Your task to perform on an android device: turn pop-ups off in chrome Image 0: 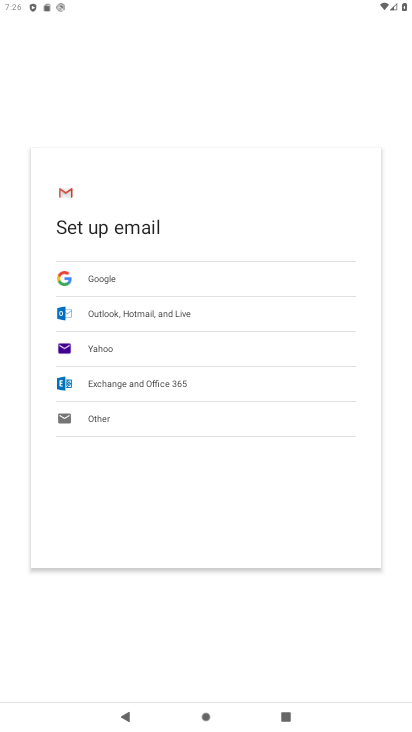
Step 0: press home button
Your task to perform on an android device: turn pop-ups off in chrome Image 1: 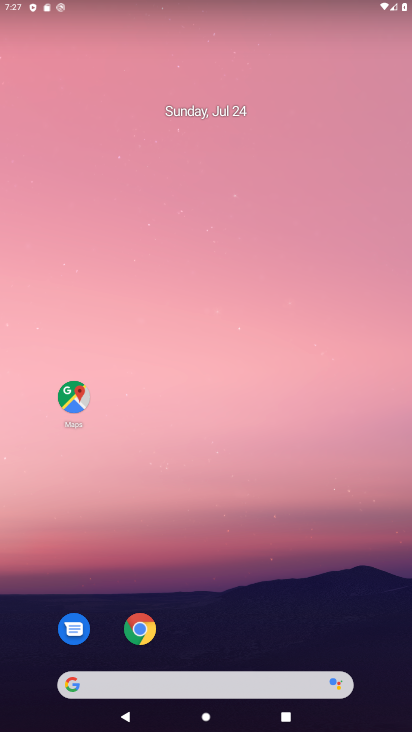
Step 1: drag from (311, 607) to (204, 9)
Your task to perform on an android device: turn pop-ups off in chrome Image 2: 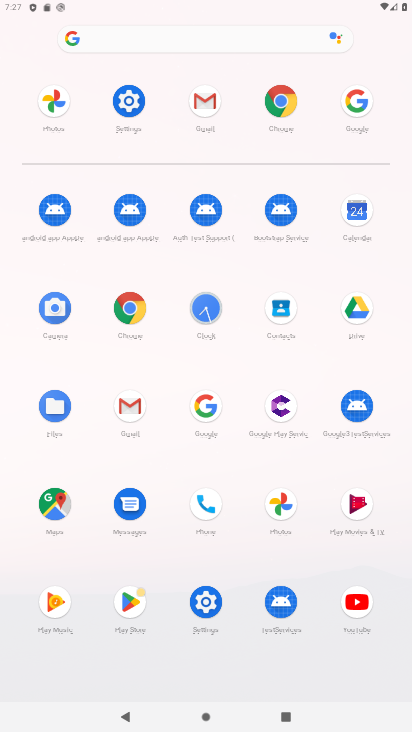
Step 2: click (122, 297)
Your task to perform on an android device: turn pop-ups off in chrome Image 3: 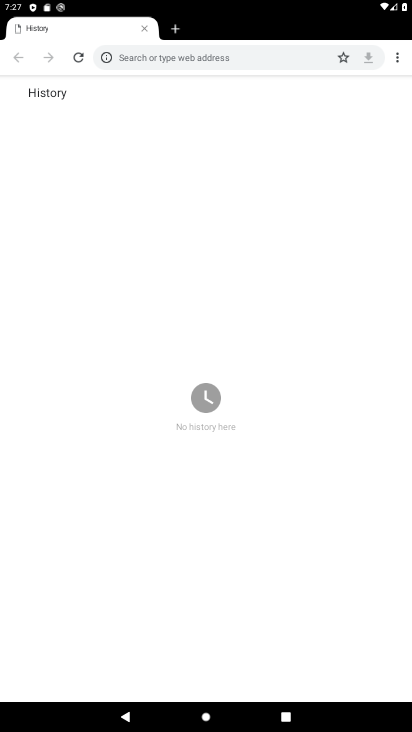
Step 3: click (393, 52)
Your task to perform on an android device: turn pop-ups off in chrome Image 4: 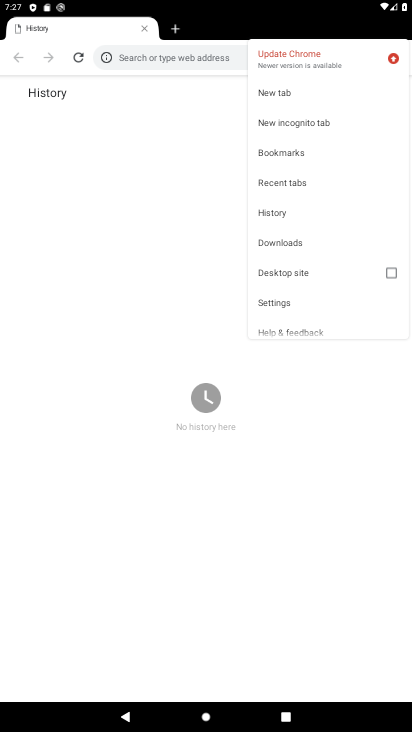
Step 4: click (281, 296)
Your task to perform on an android device: turn pop-ups off in chrome Image 5: 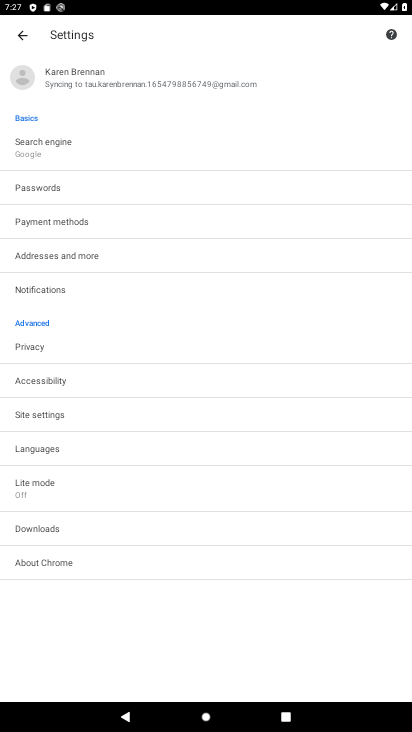
Step 5: click (81, 411)
Your task to perform on an android device: turn pop-ups off in chrome Image 6: 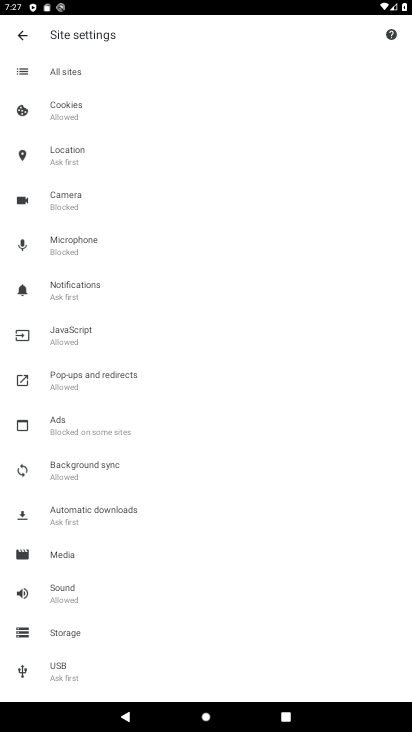
Step 6: click (101, 381)
Your task to perform on an android device: turn pop-ups off in chrome Image 7: 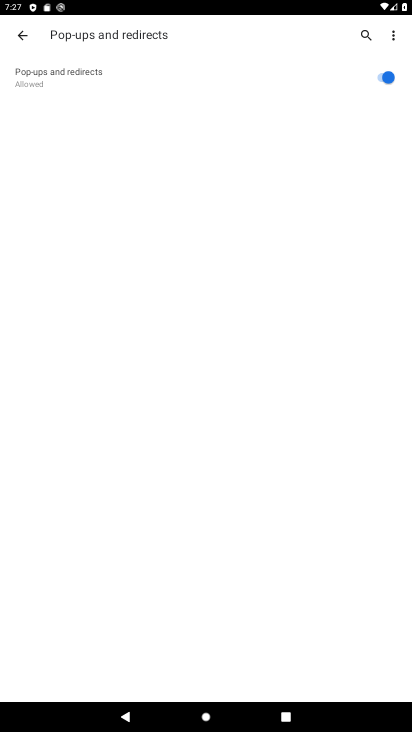
Step 7: click (357, 79)
Your task to perform on an android device: turn pop-ups off in chrome Image 8: 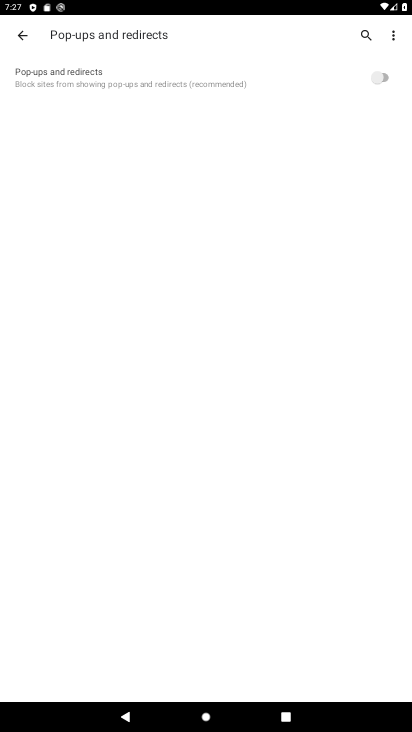
Step 8: task complete